Your task to perform on an android device: Go to location settings Image 0: 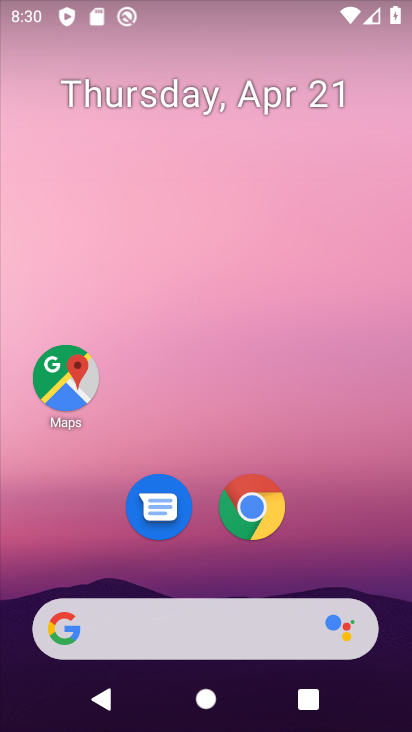
Step 0: drag from (393, 541) to (349, 116)
Your task to perform on an android device: Go to location settings Image 1: 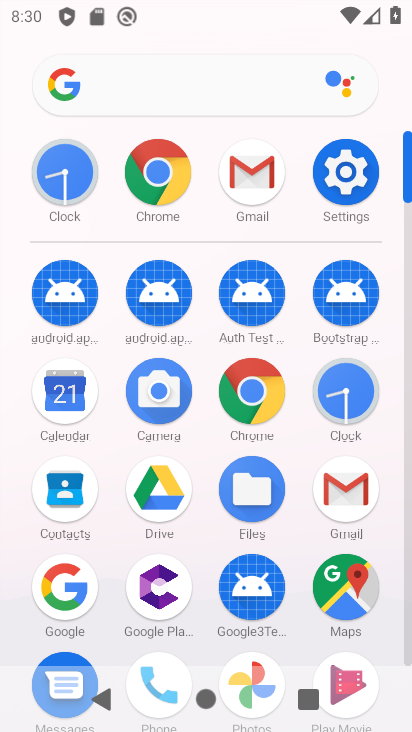
Step 1: click (352, 191)
Your task to perform on an android device: Go to location settings Image 2: 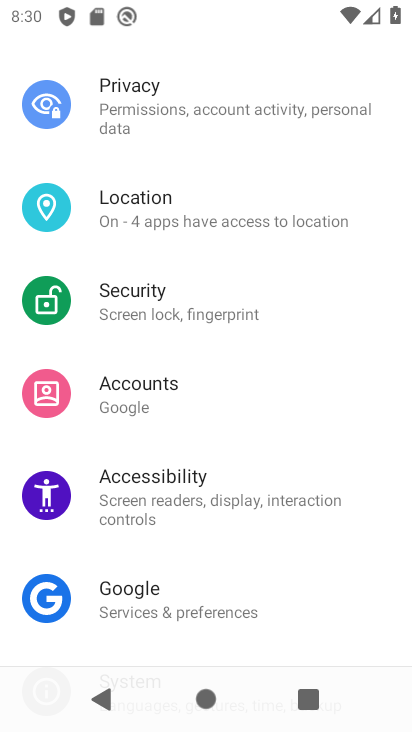
Step 2: click (253, 234)
Your task to perform on an android device: Go to location settings Image 3: 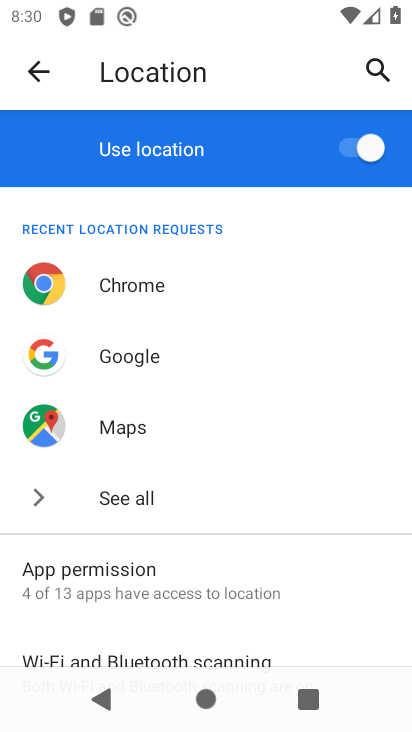
Step 3: task complete